Your task to perform on an android device: Open notification settings Image 0: 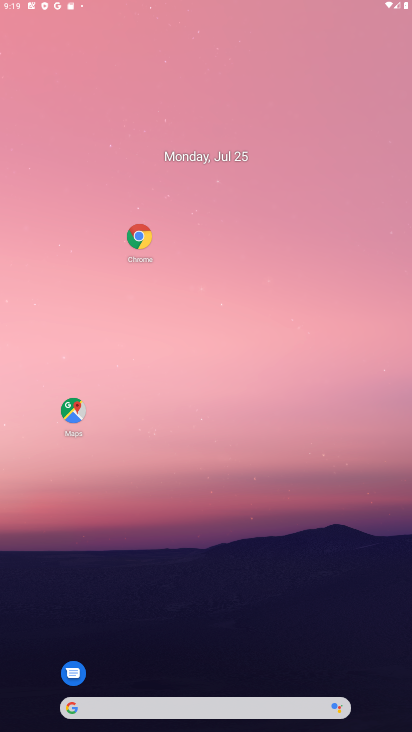
Step 0: drag from (229, 675) to (218, 272)
Your task to perform on an android device: Open notification settings Image 1: 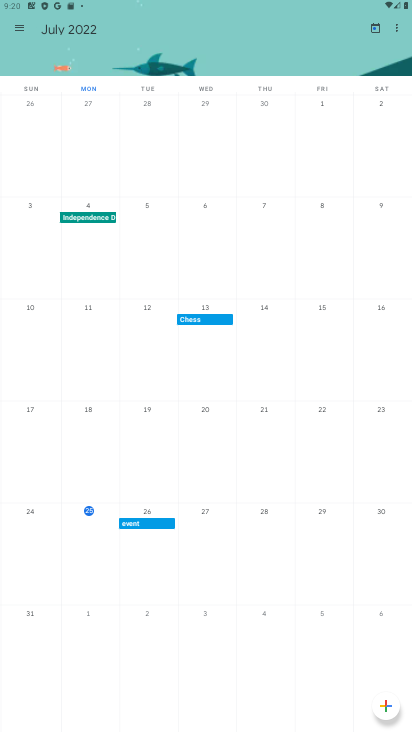
Step 1: press home button
Your task to perform on an android device: Open notification settings Image 2: 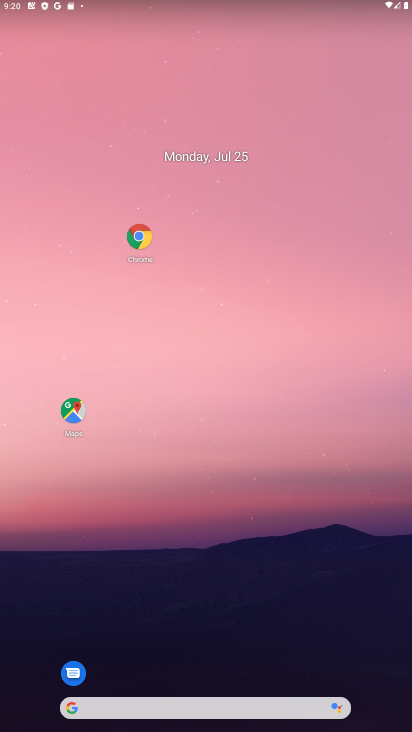
Step 2: drag from (224, 653) to (205, 31)
Your task to perform on an android device: Open notification settings Image 3: 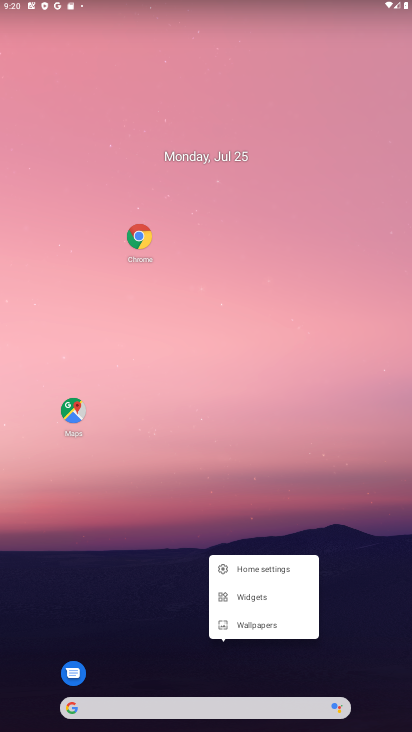
Step 3: click (257, 352)
Your task to perform on an android device: Open notification settings Image 4: 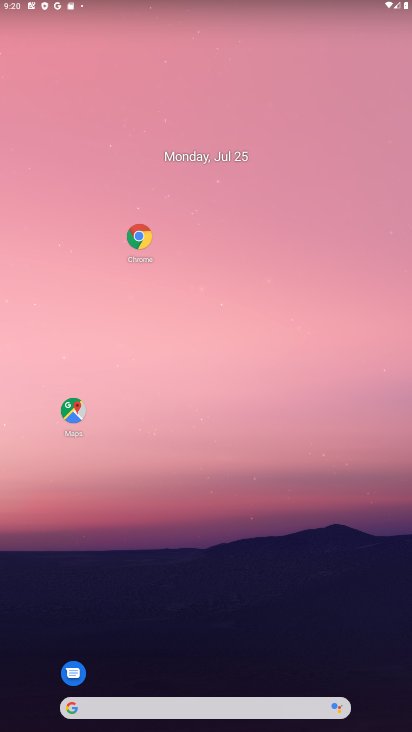
Step 4: drag from (294, 655) to (313, 3)
Your task to perform on an android device: Open notification settings Image 5: 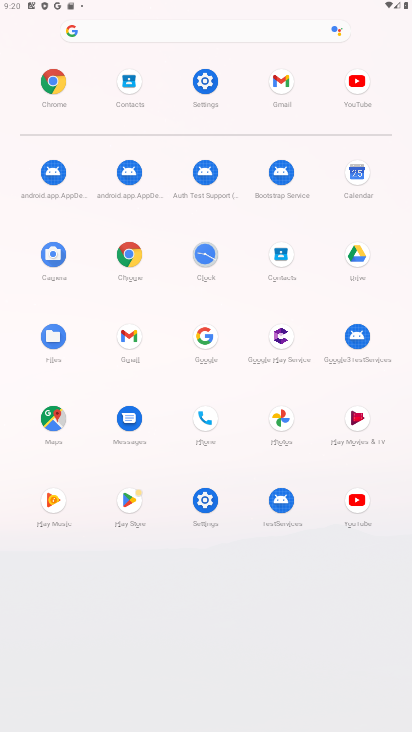
Step 5: click (214, 99)
Your task to perform on an android device: Open notification settings Image 6: 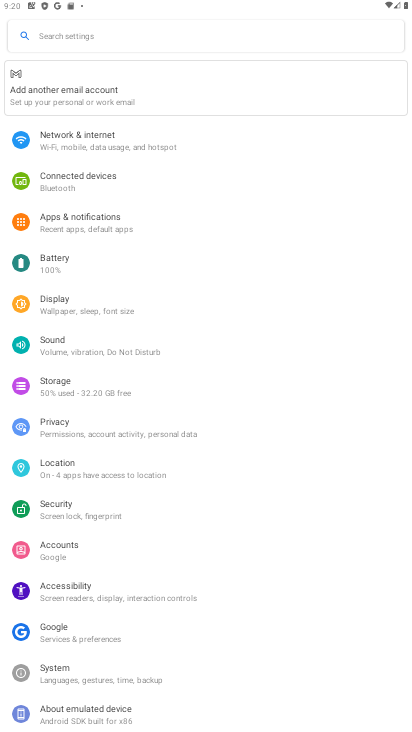
Step 6: task complete